Your task to perform on an android device: change the clock display to digital Image 0: 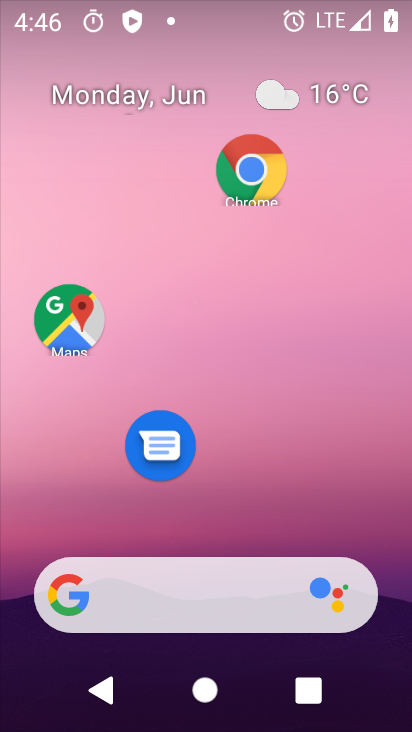
Step 0: drag from (214, 549) to (287, 1)
Your task to perform on an android device: change the clock display to digital Image 1: 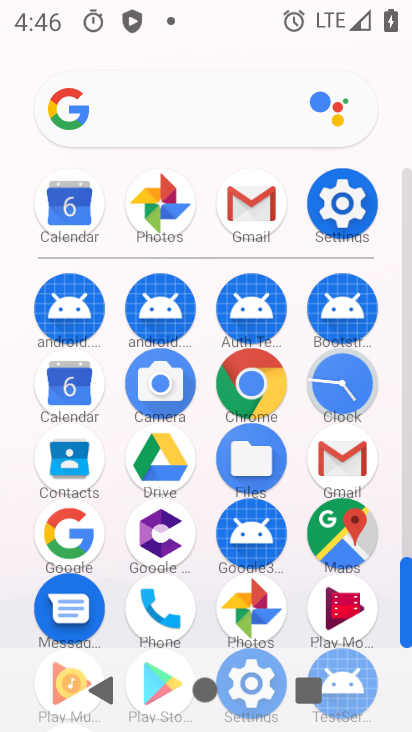
Step 1: click (340, 208)
Your task to perform on an android device: change the clock display to digital Image 2: 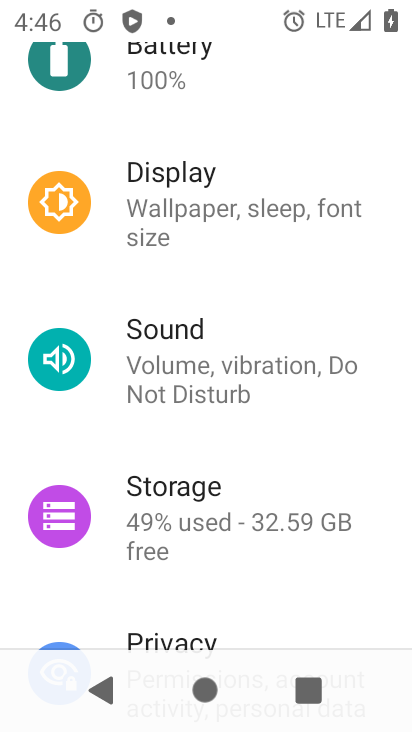
Step 2: press back button
Your task to perform on an android device: change the clock display to digital Image 3: 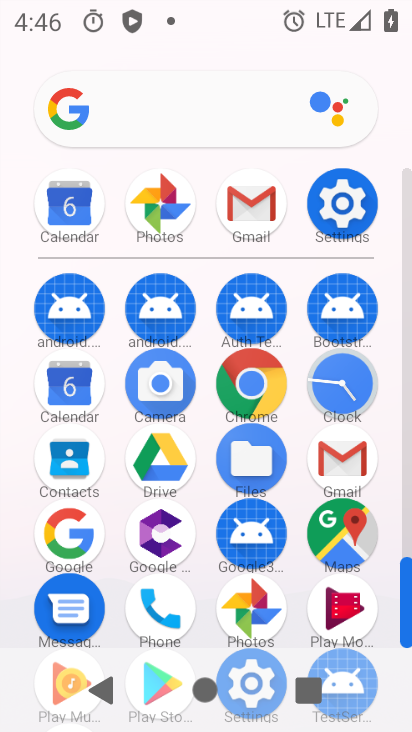
Step 3: click (347, 382)
Your task to perform on an android device: change the clock display to digital Image 4: 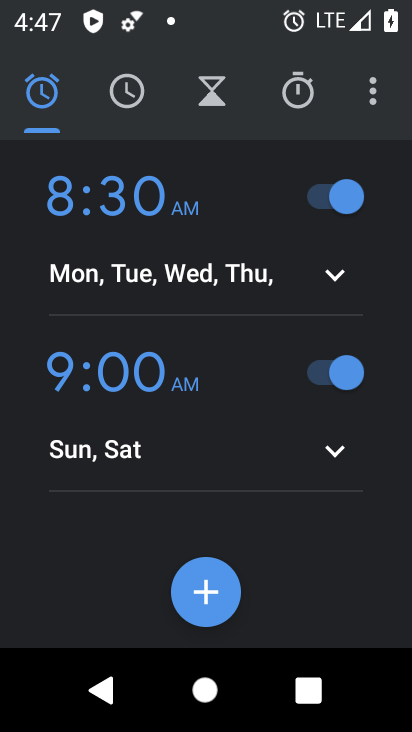
Step 4: click (371, 91)
Your task to perform on an android device: change the clock display to digital Image 5: 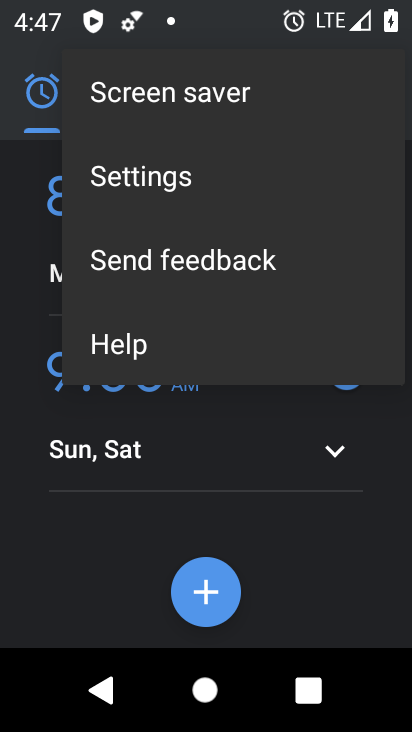
Step 5: click (156, 179)
Your task to perform on an android device: change the clock display to digital Image 6: 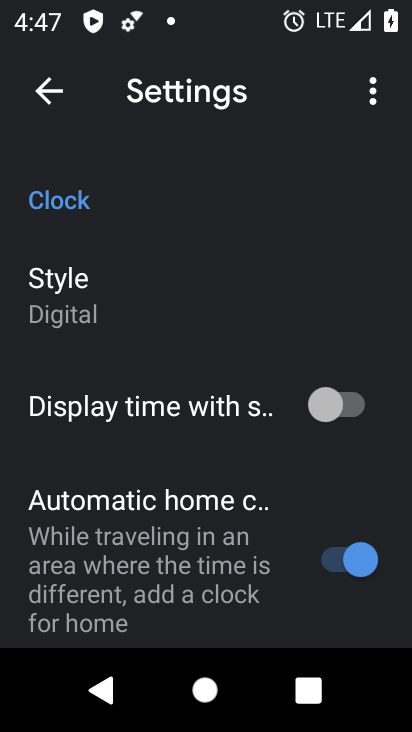
Step 6: task complete